Your task to perform on an android device: check google app version Image 0: 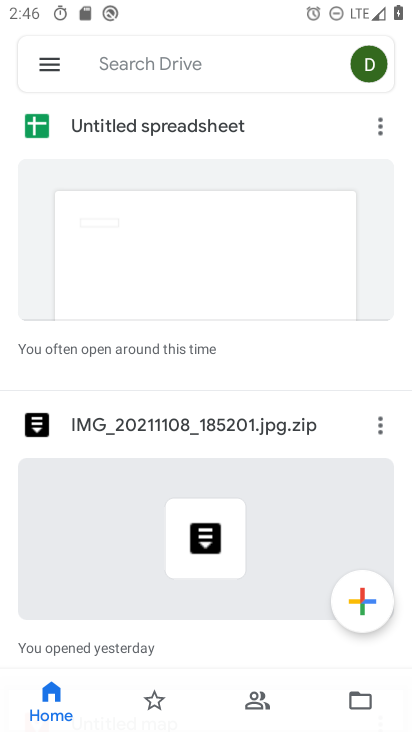
Step 0: press home button
Your task to perform on an android device: check google app version Image 1: 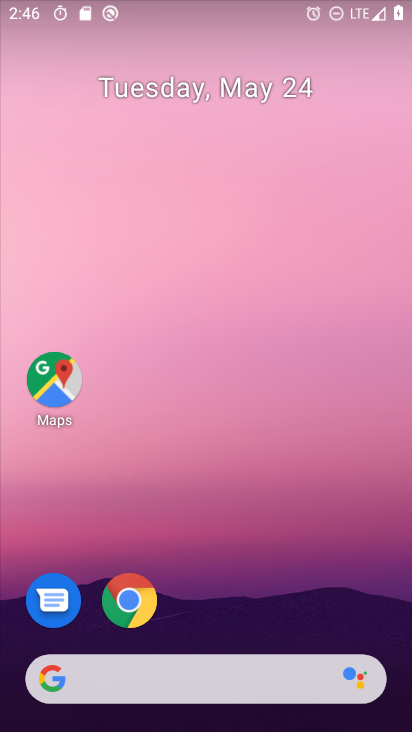
Step 1: drag from (251, 458) to (214, 159)
Your task to perform on an android device: check google app version Image 2: 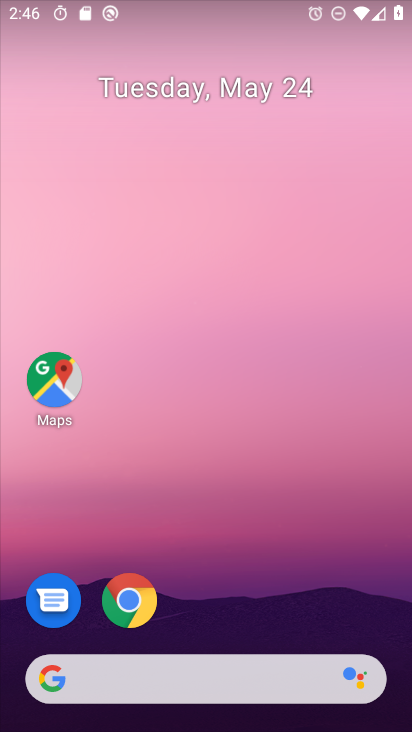
Step 2: drag from (260, 568) to (293, 86)
Your task to perform on an android device: check google app version Image 3: 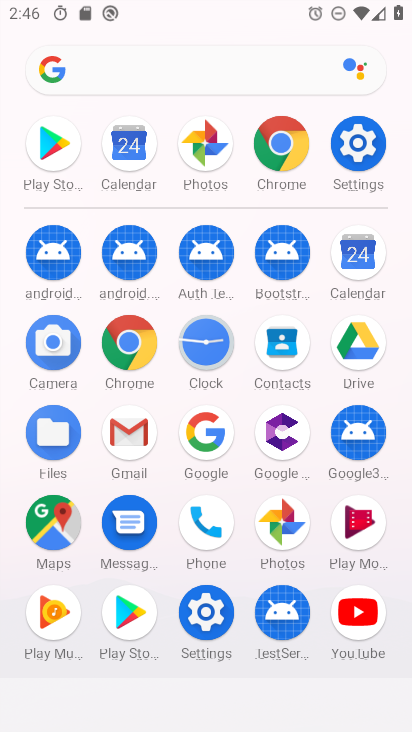
Step 3: click (210, 428)
Your task to perform on an android device: check google app version Image 4: 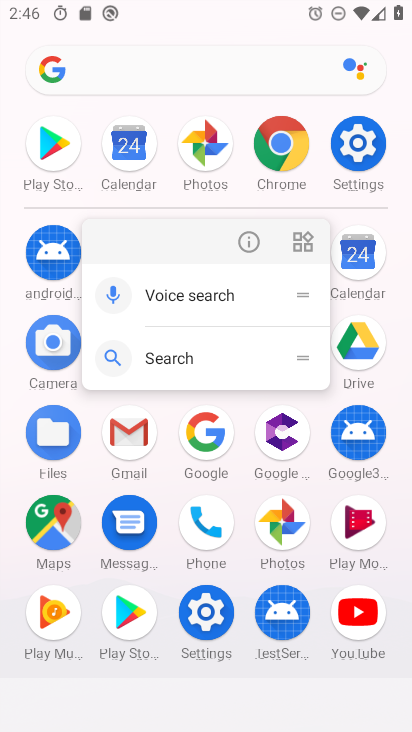
Step 4: click (244, 241)
Your task to perform on an android device: check google app version Image 5: 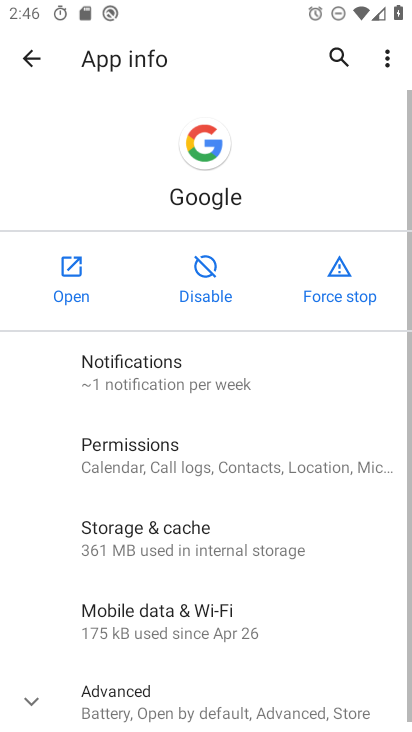
Step 5: drag from (207, 619) to (238, 148)
Your task to perform on an android device: check google app version Image 6: 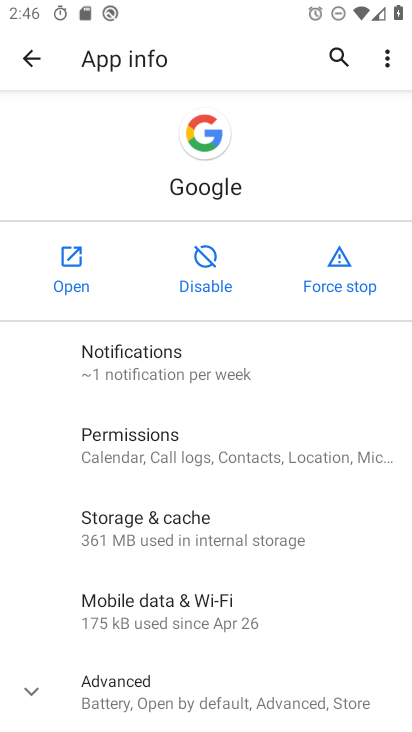
Step 6: drag from (190, 601) to (275, 240)
Your task to perform on an android device: check google app version Image 7: 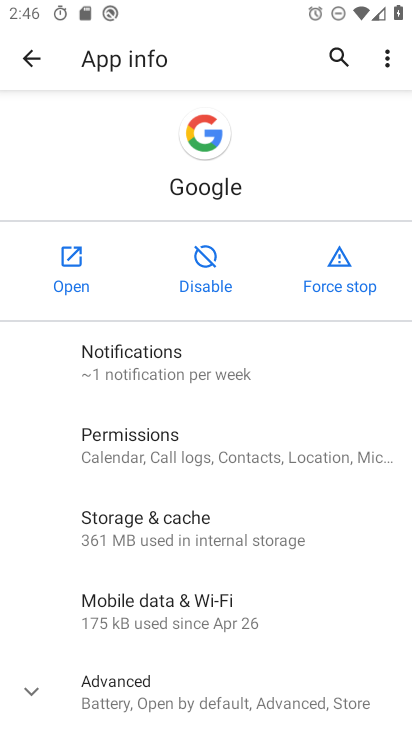
Step 7: click (141, 702)
Your task to perform on an android device: check google app version Image 8: 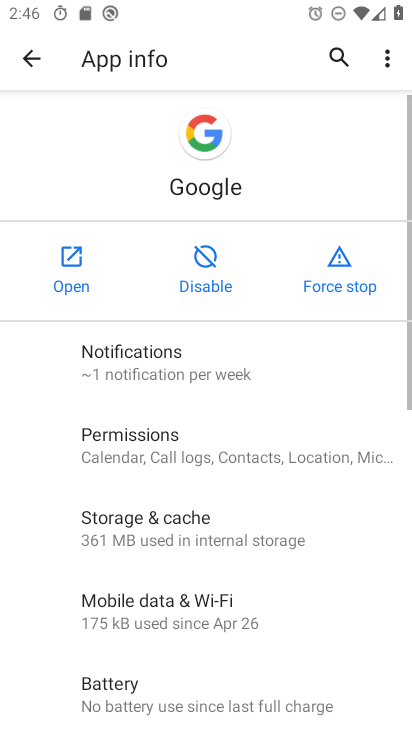
Step 8: task complete